Your task to perform on an android device: View the shopping cart on target. Search for "razer kraken" on target, select the first entry, and add it to the cart. Image 0: 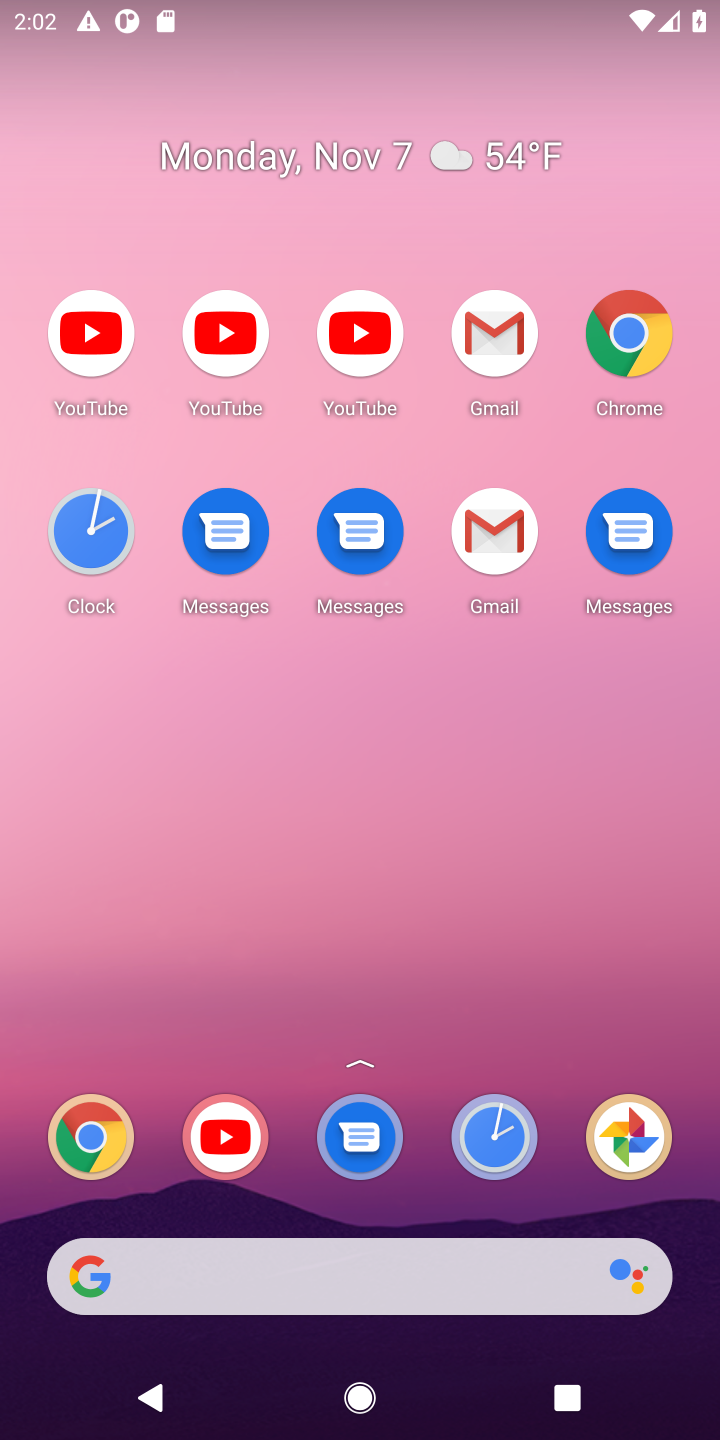
Step 0: drag from (427, 1170) to (442, 168)
Your task to perform on an android device: View the shopping cart on target. Search for "razer kraken" on target, select the first entry, and add it to the cart. Image 1: 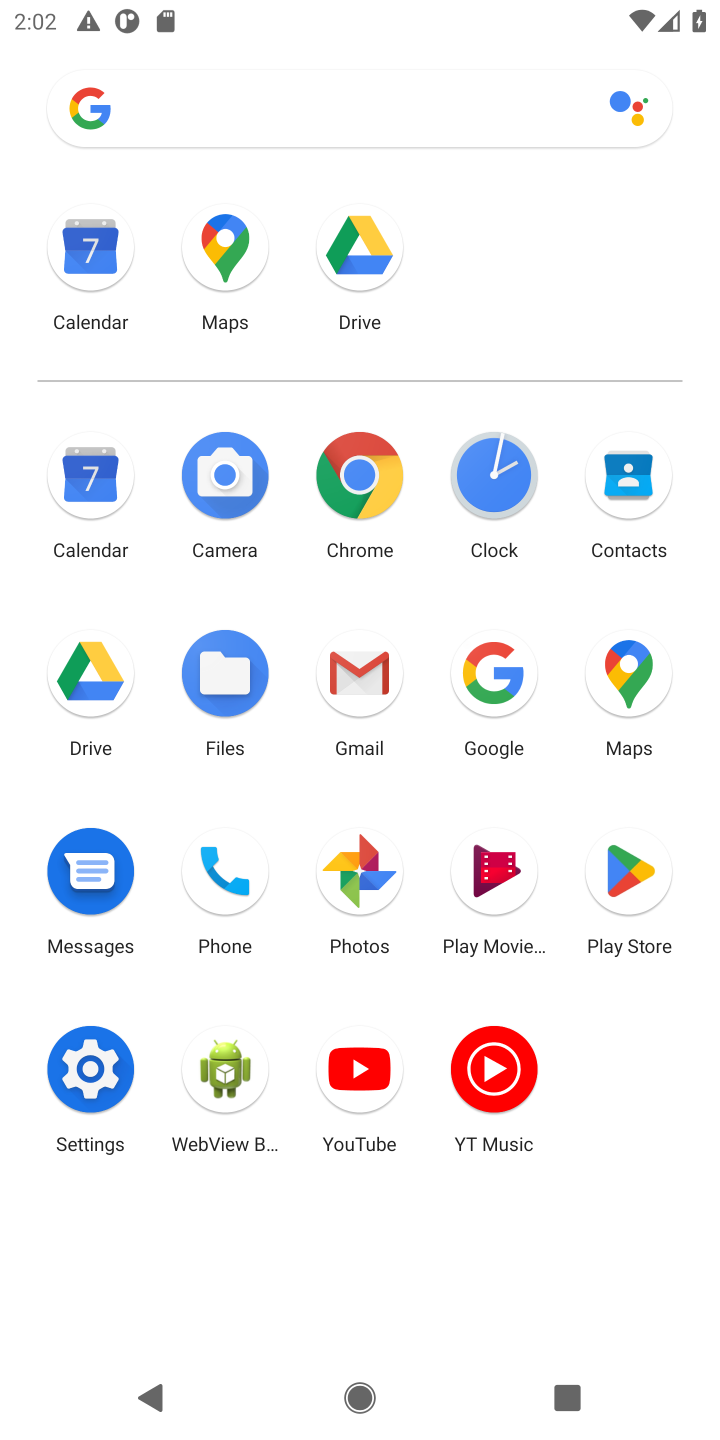
Step 1: click (349, 472)
Your task to perform on an android device: View the shopping cart on target. Search for "razer kraken" on target, select the first entry, and add it to the cart. Image 2: 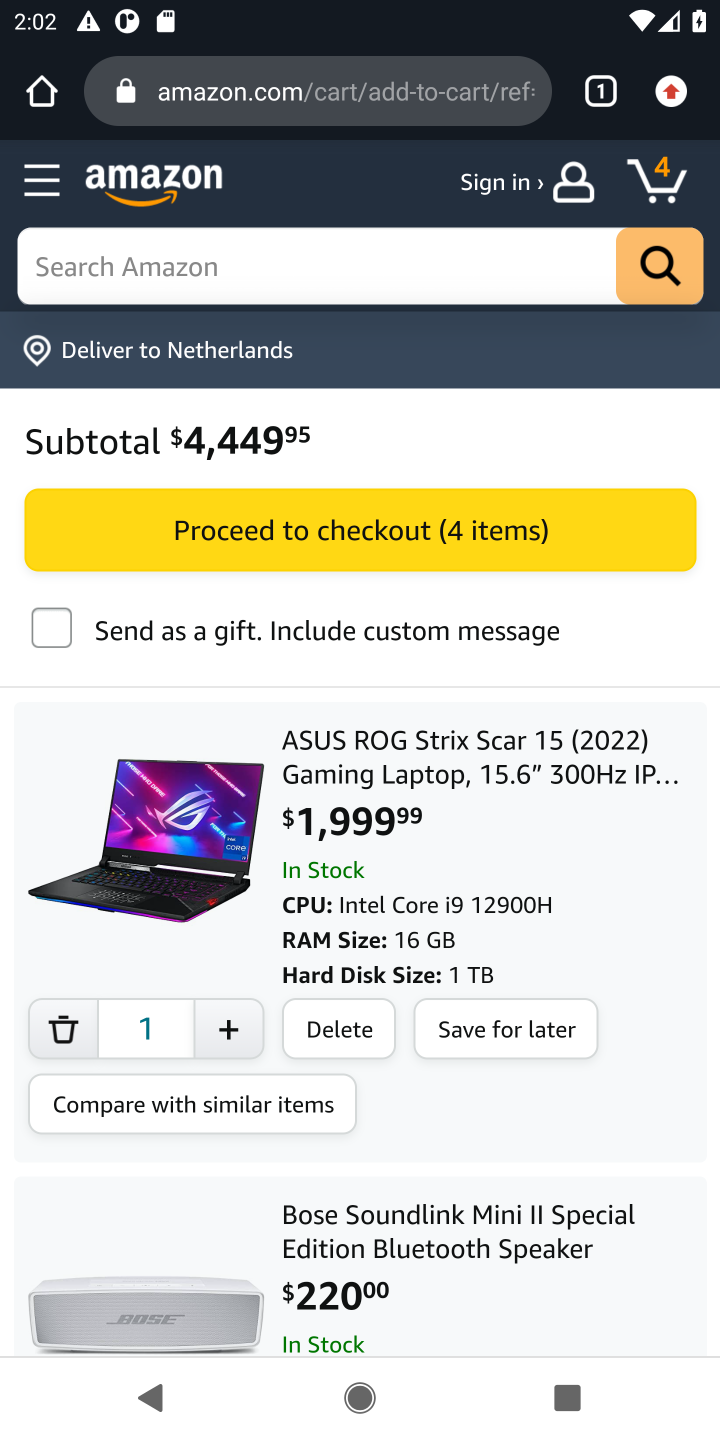
Step 2: click (357, 80)
Your task to perform on an android device: View the shopping cart on target. Search for "razer kraken" on target, select the first entry, and add it to the cart. Image 3: 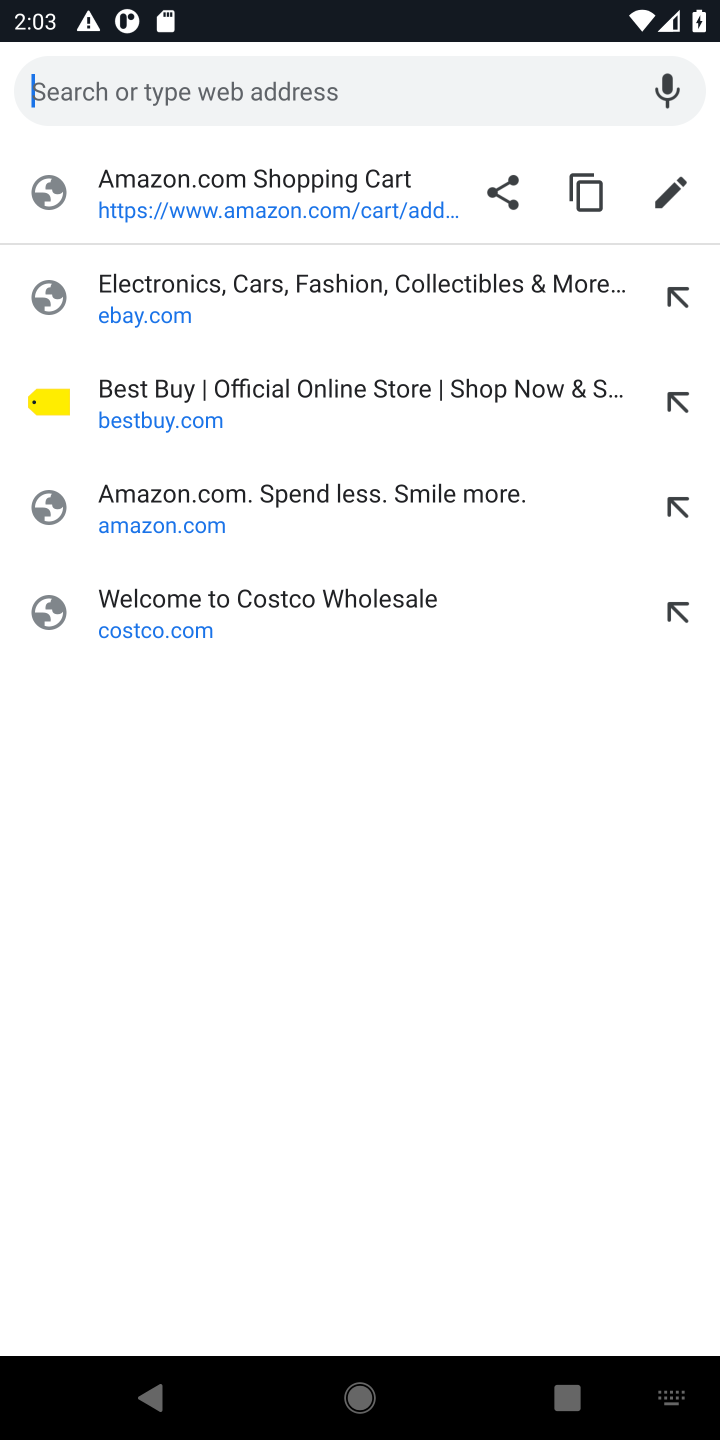
Step 3: type "target.com"
Your task to perform on an android device: View the shopping cart on target. Search for "razer kraken" on target, select the first entry, and add it to the cart. Image 4: 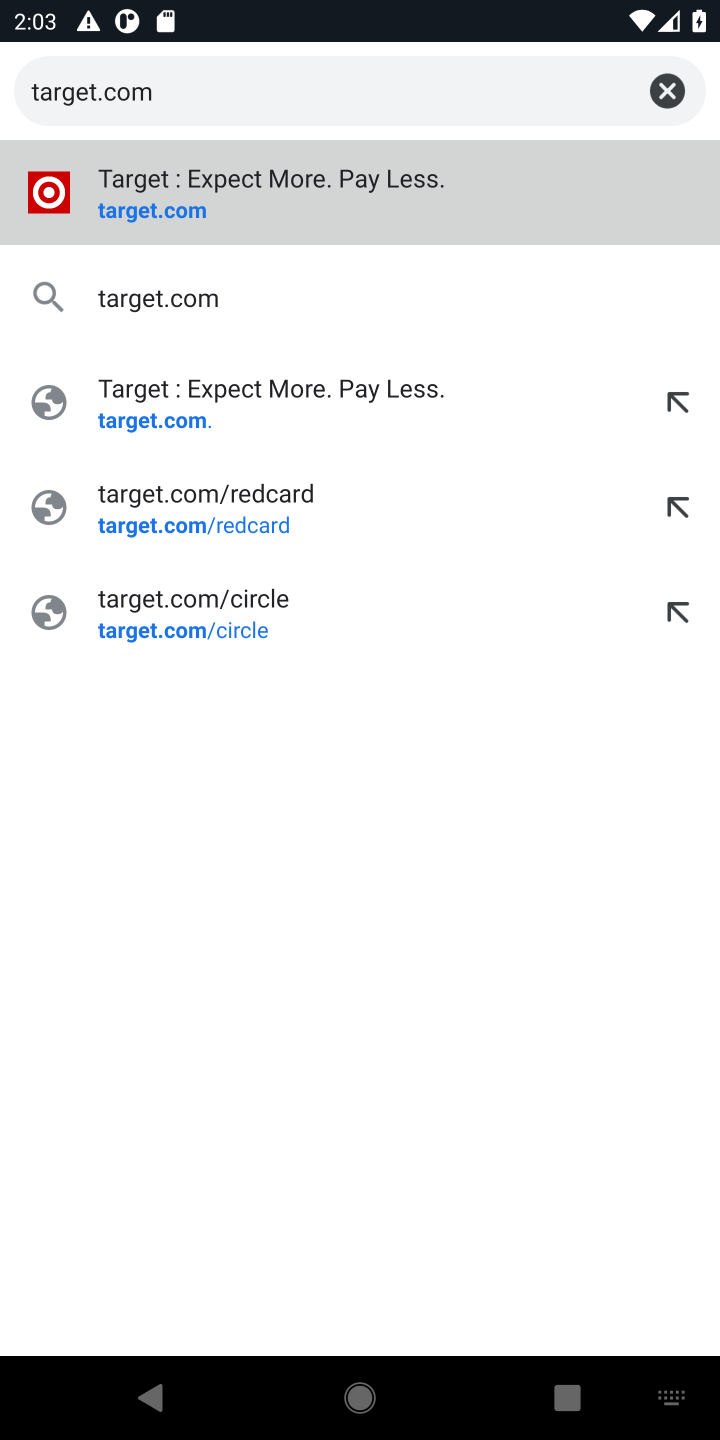
Step 4: press enter
Your task to perform on an android device: View the shopping cart on target. Search for "razer kraken" on target, select the first entry, and add it to the cart. Image 5: 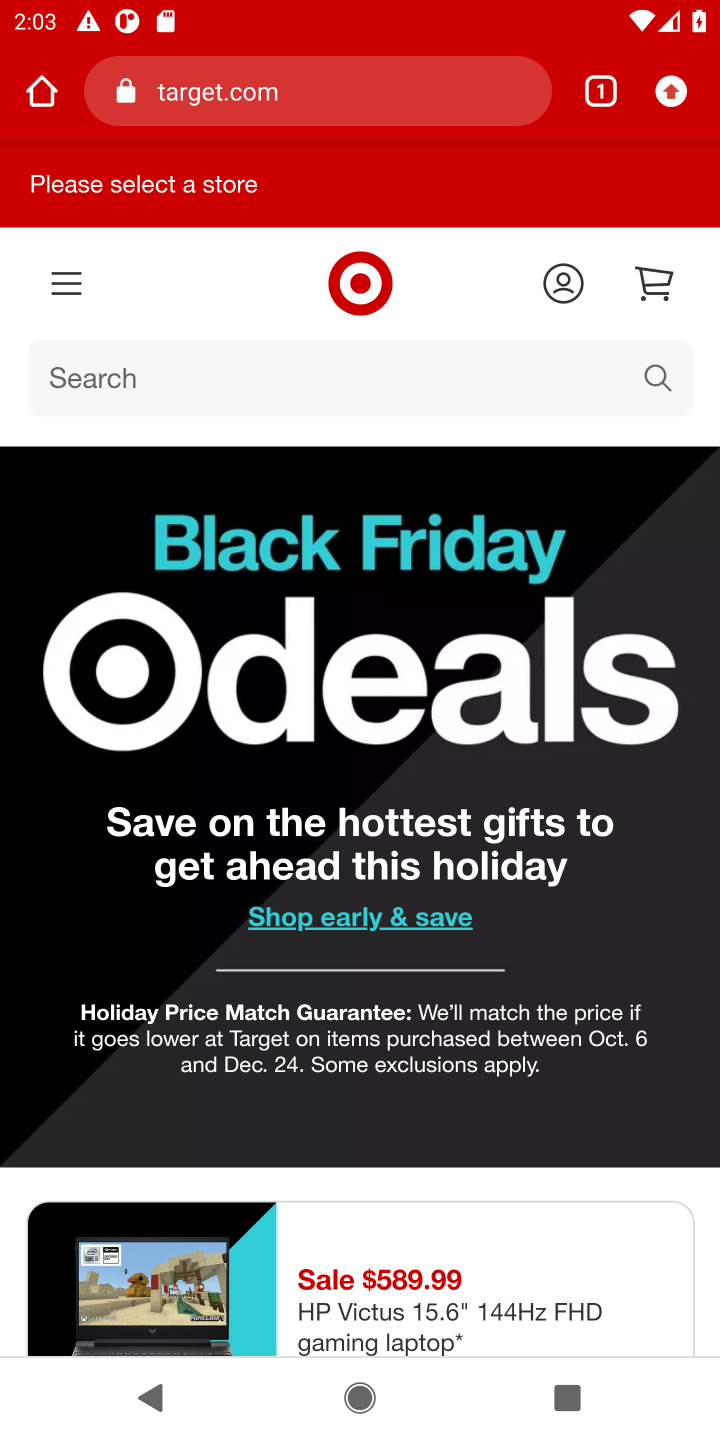
Step 5: click (661, 292)
Your task to perform on an android device: View the shopping cart on target. Search for "razer kraken" on target, select the first entry, and add it to the cart. Image 6: 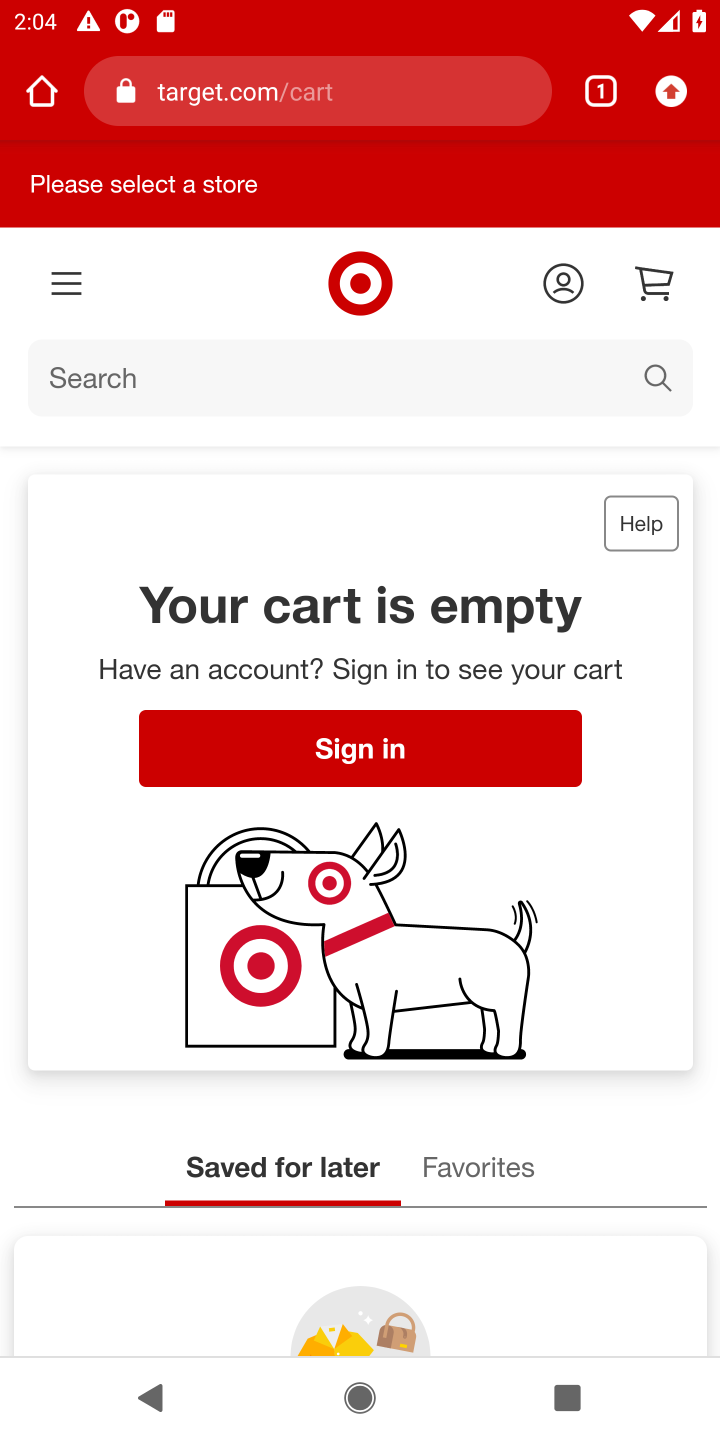
Step 6: click (284, 373)
Your task to perform on an android device: View the shopping cart on target. Search for "razer kraken" on target, select the first entry, and add it to the cart. Image 7: 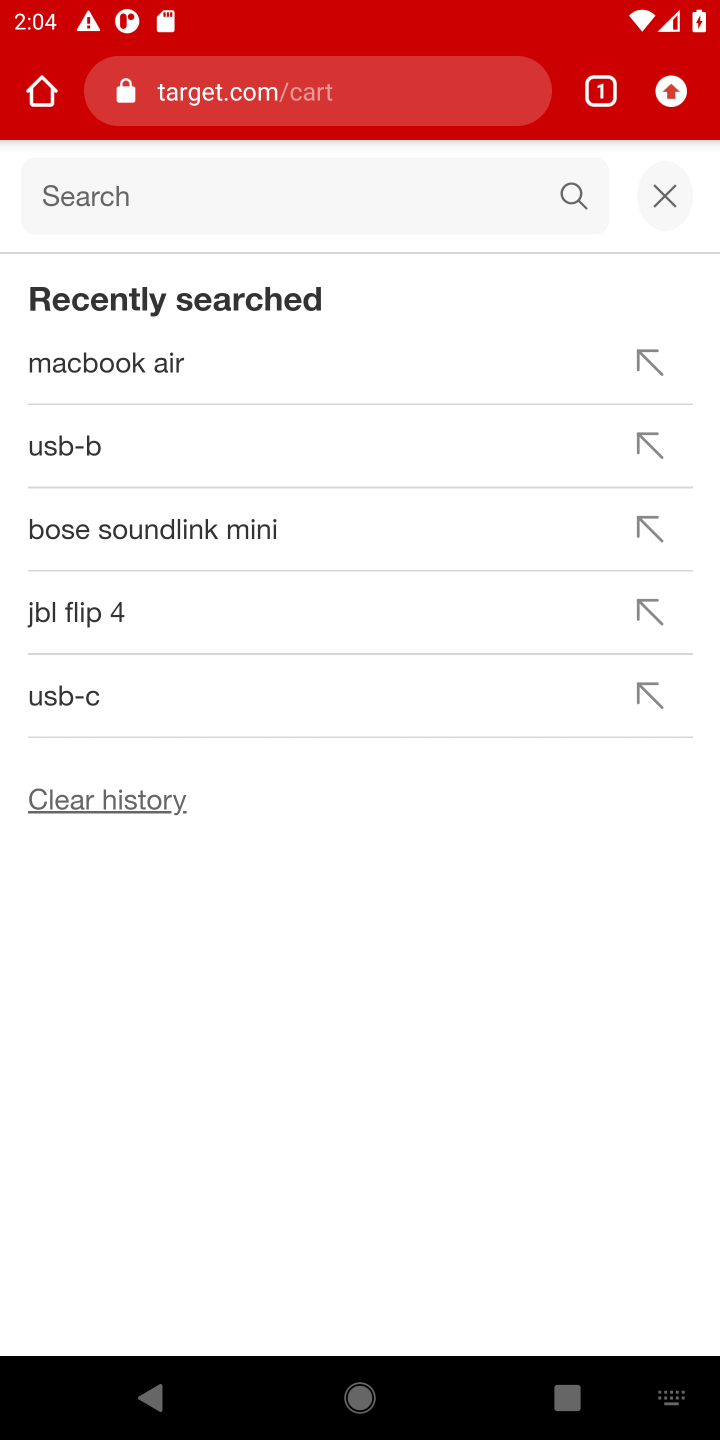
Step 7: type "razer kraken"
Your task to perform on an android device: View the shopping cart on target. Search for "razer kraken" on target, select the first entry, and add it to the cart. Image 8: 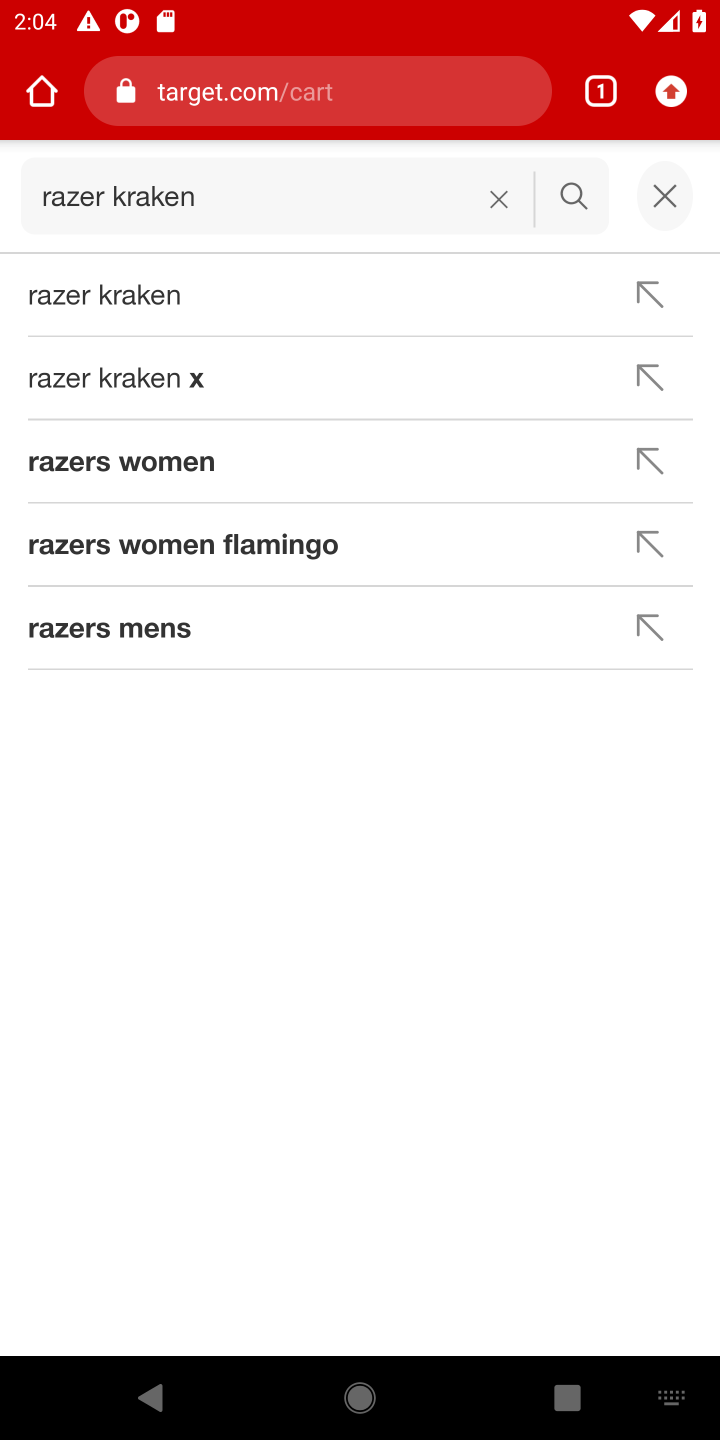
Step 8: press enter
Your task to perform on an android device: View the shopping cart on target. Search for "razer kraken" on target, select the first entry, and add it to the cart. Image 9: 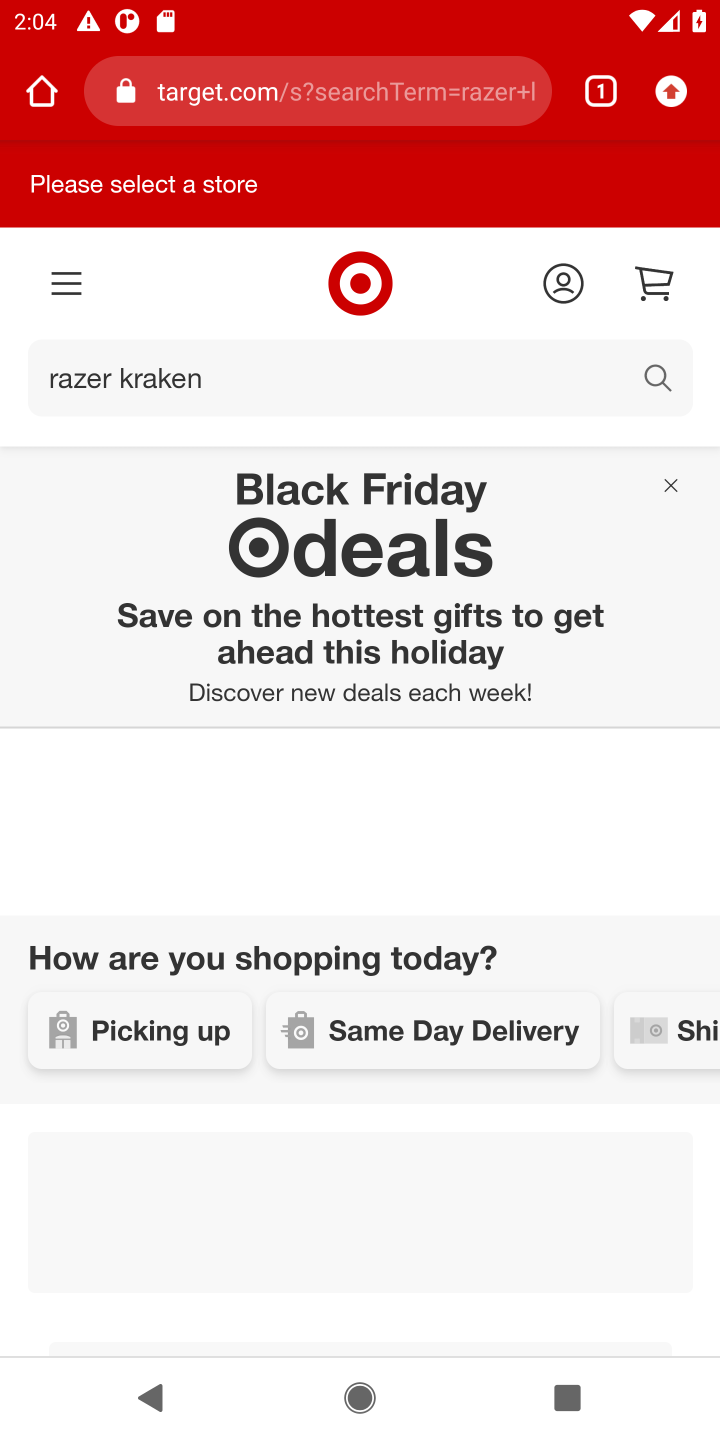
Step 9: drag from (412, 1105) to (436, 161)
Your task to perform on an android device: View the shopping cart on target. Search for "razer kraken" on target, select the first entry, and add it to the cart. Image 10: 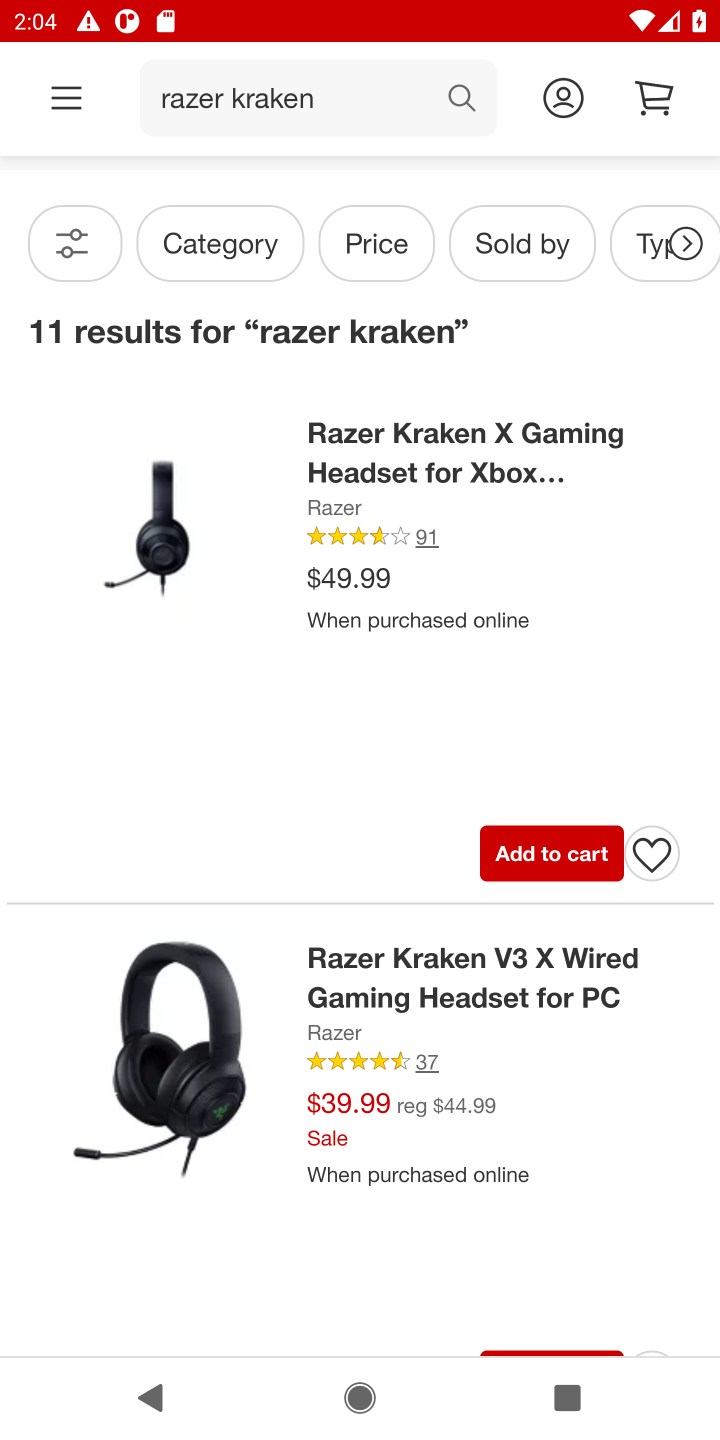
Step 10: click (544, 836)
Your task to perform on an android device: View the shopping cart on target. Search for "razer kraken" on target, select the first entry, and add it to the cart. Image 11: 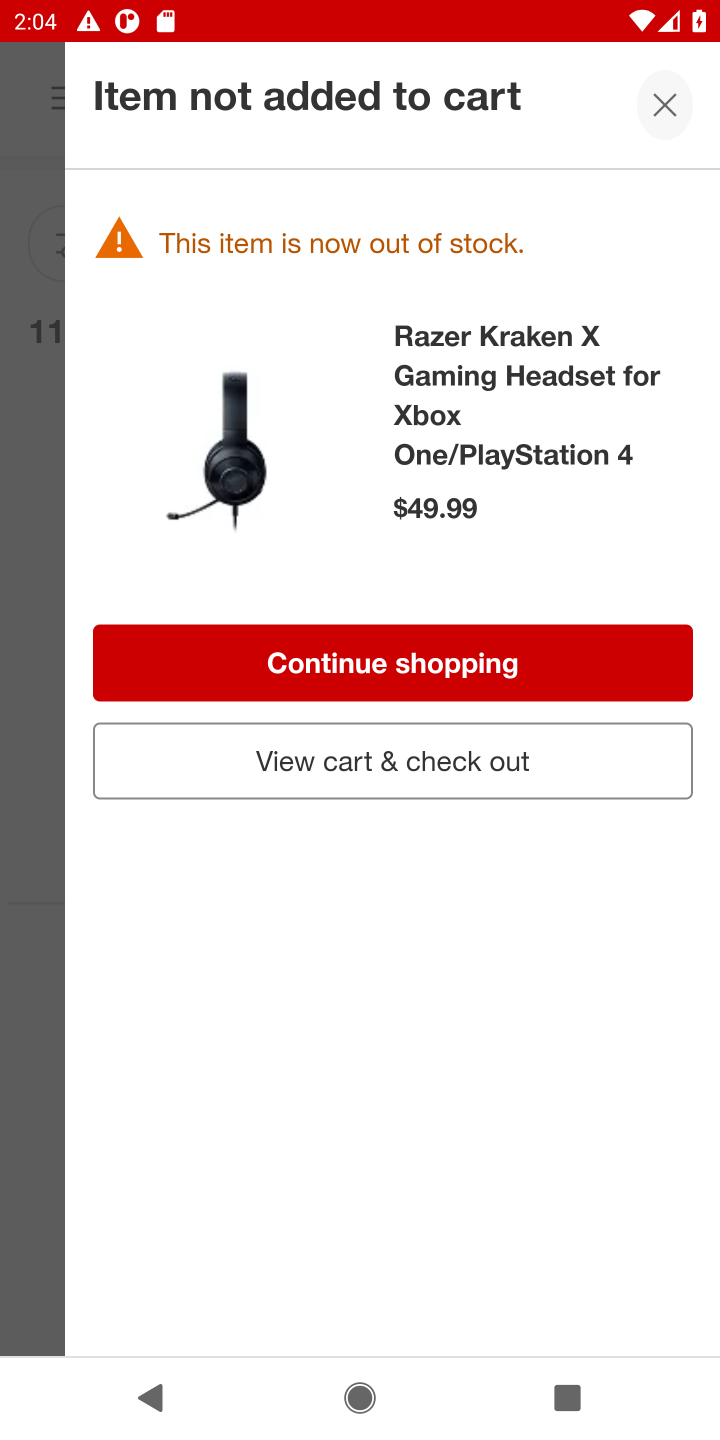
Step 11: task complete